Your task to perform on an android device: What's the weather today? Image 0: 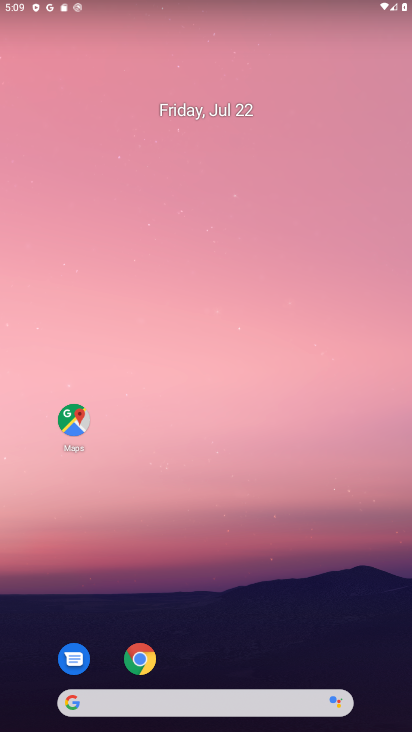
Step 0: click (189, 704)
Your task to perform on an android device: What's the weather today? Image 1: 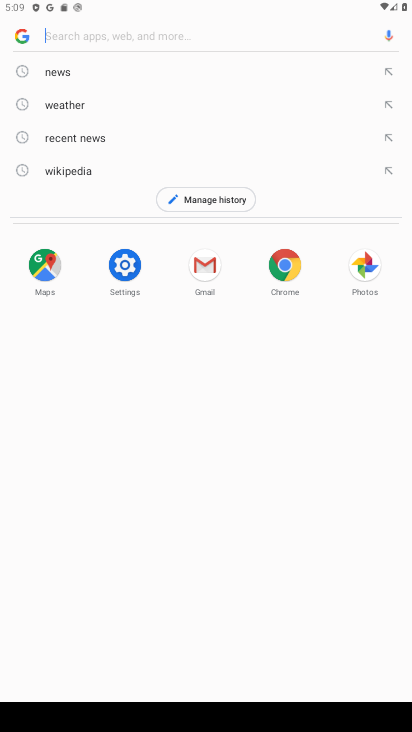
Step 1: click (72, 101)
Your task to perform on an android device: What's the weather today? Image 2: 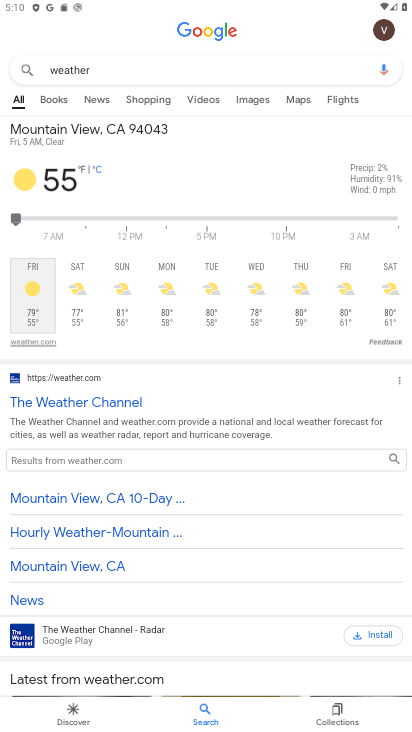
Step 2: click (34, 283)
Your task to perform on an android device: What's the weather today? Image 3: 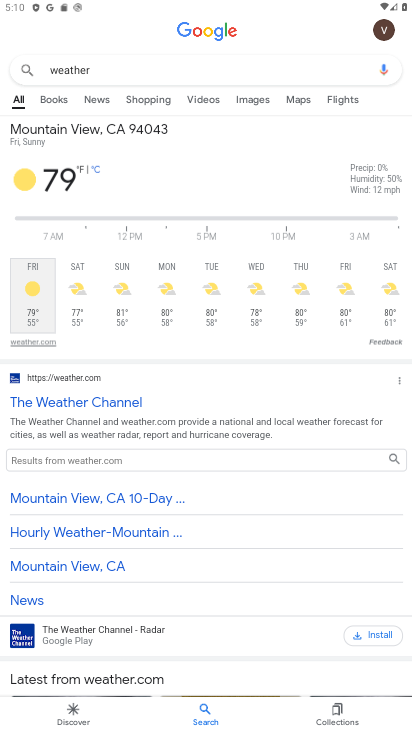
Step 3: task complete